Your task to perform on an android device: Do I have any events tomorrow? Image 0: 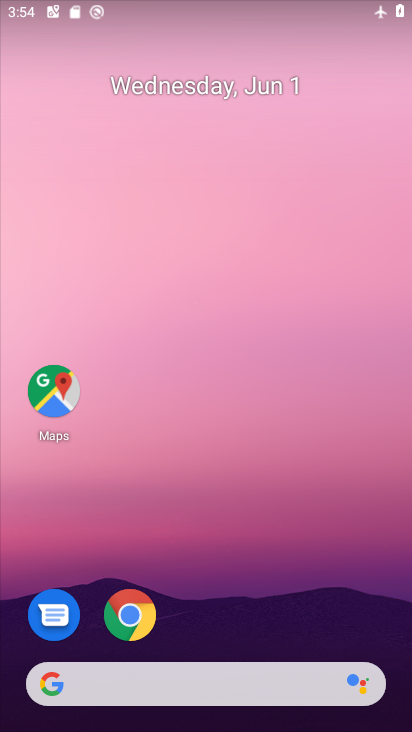
Step 0: drag from (290, 470) to (249, 74)
Your task to perform on an android device: Do I have any events tomorrow? Image 1: 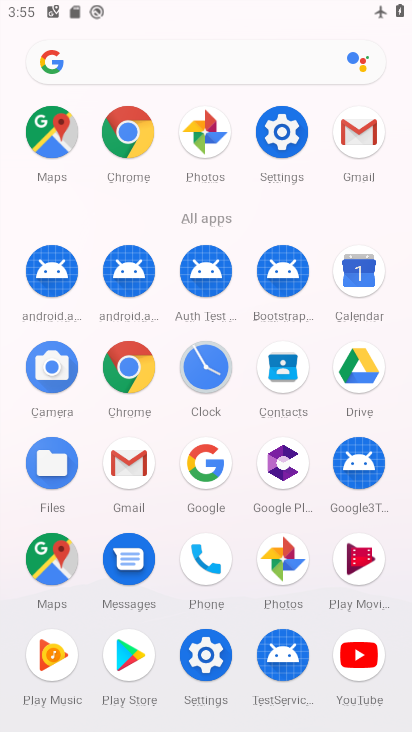
Step 1: click (359, 273)
Your task to perform on an android device: Do I have any events tomorrow? Image 2: 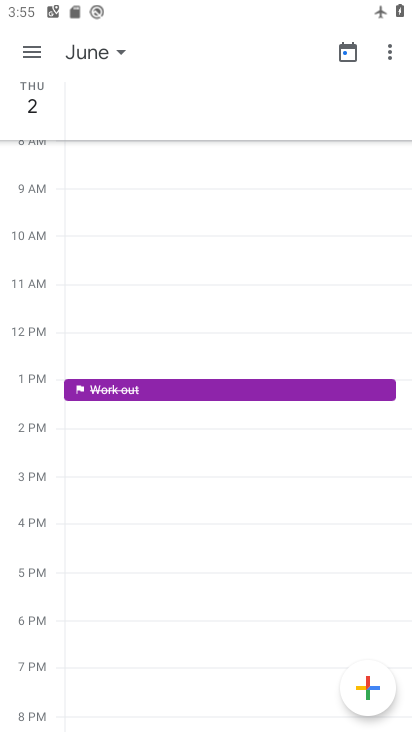
Step 2: task complete